Your task to perform on an android device: remove spam from my inbox in the gmail app Image 0: 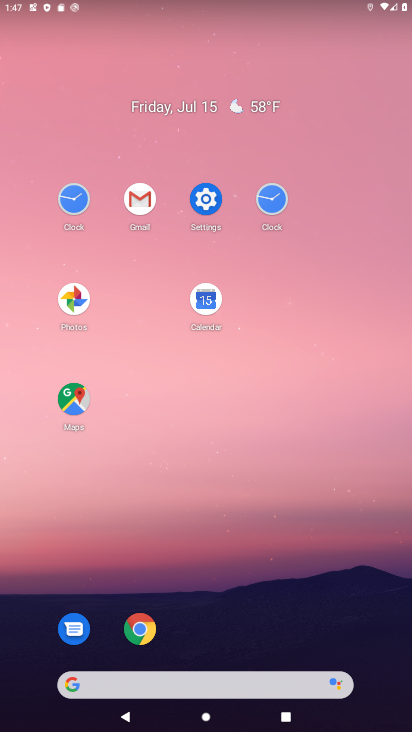
Step 0: click (136, 211)
Your task to perform on an android device: remove spam from my inbox in the gmail app Image 1: 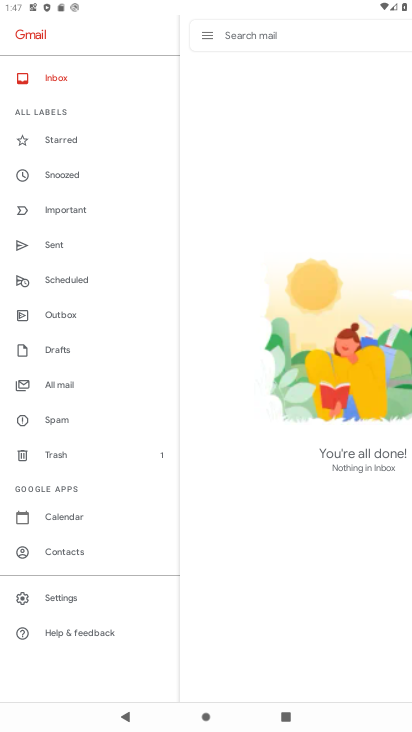
Step 1: click (94, 415)
Your task to perform on an android device: remove spam from my inbox in the gmail app Image 2: 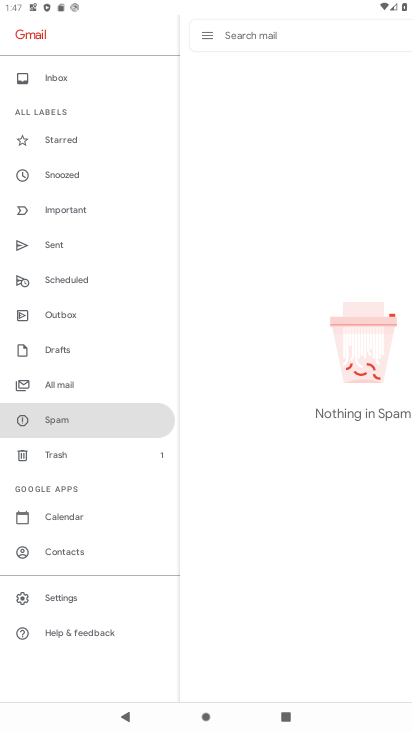
Step 2: click (94, 413)
Your task to perform on an android device: remove spam from my inbox in the gmail app Image 3: 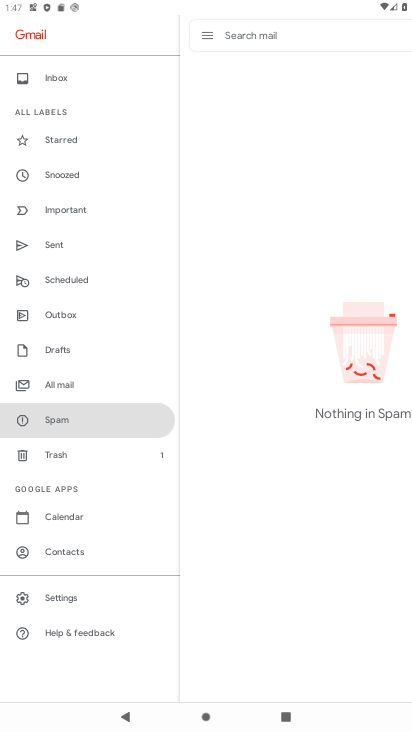
Step 3: click (102, 425)
Your task to perform on an android device: remove spam from my inbox in the gmail app Image 4: 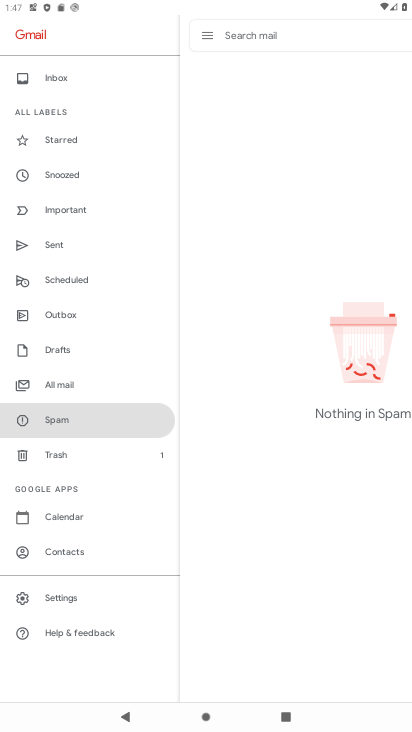
Step 4: click (94, 424)
Your task to perform on an android device: remove spam from my inbox in the gmail app Image 5: 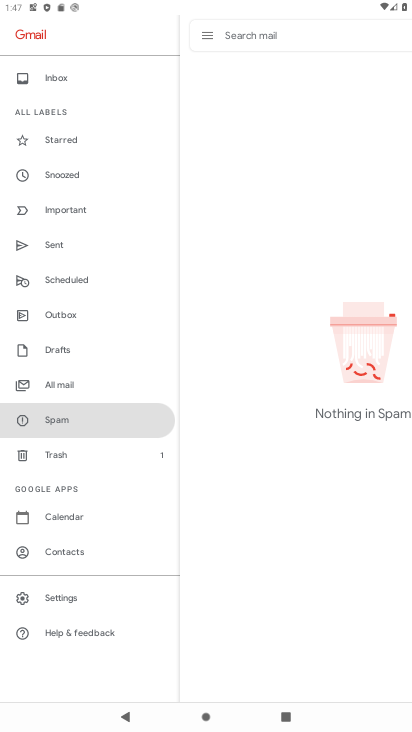
Step 5: task complete